Your task to perform on an android device: Is it going to rain tomorrow? Image 0: 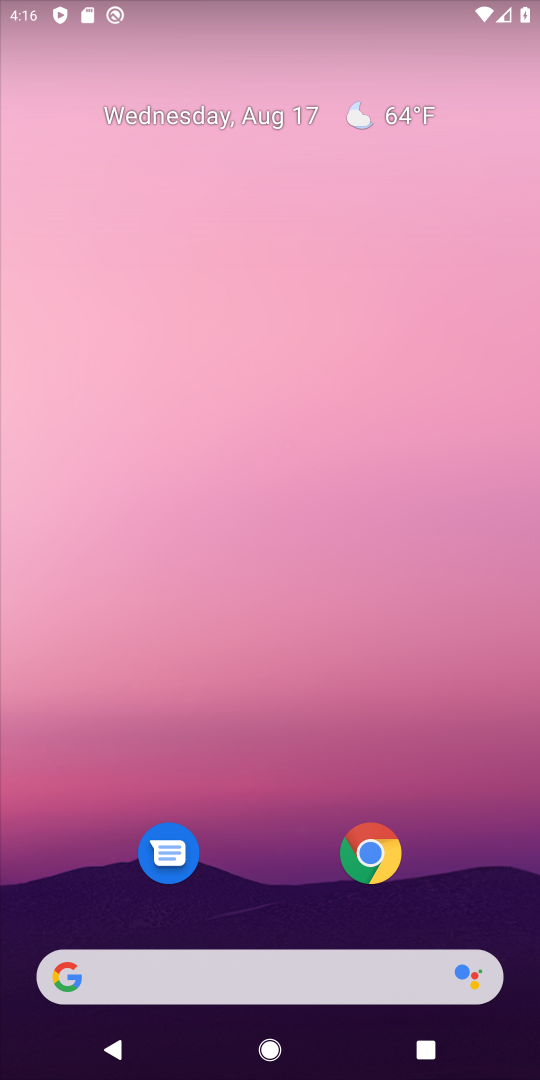
Step 0: click (390, 115)
Your task to perform on an android device: Is it going to rain tomorrow? Image 1: 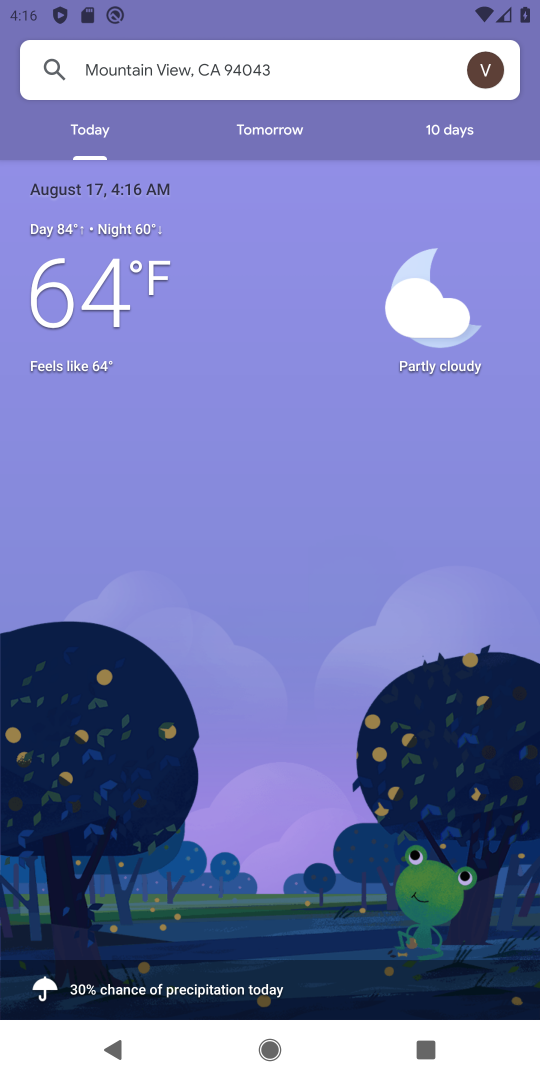
Step 1: click (261, 136)
Your task to perform on an android device: Is it going to rain tomorrow? Image 2: 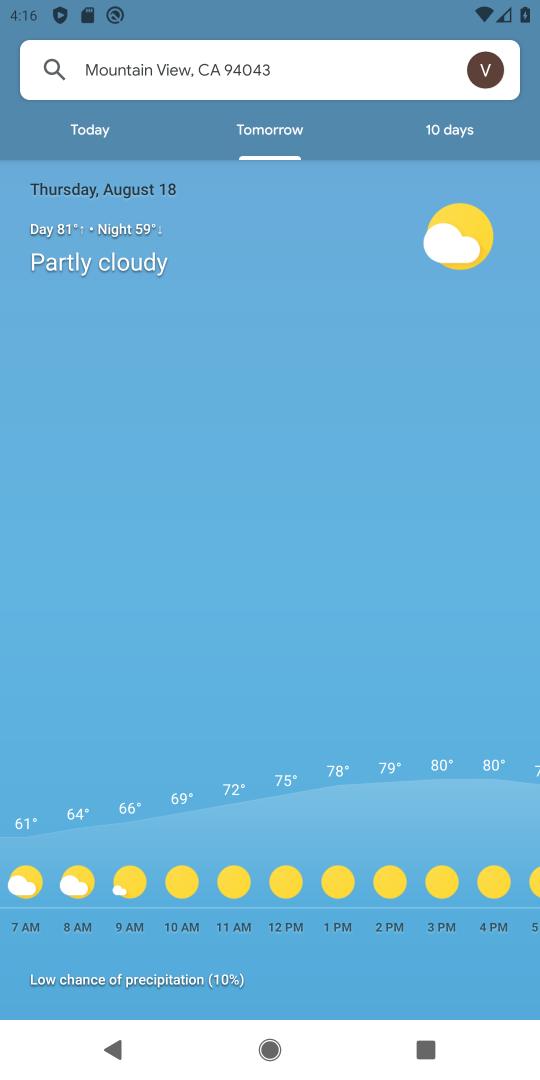
Step 2: task complete